Your task to perform on an android device: Go to eBay Image 0: 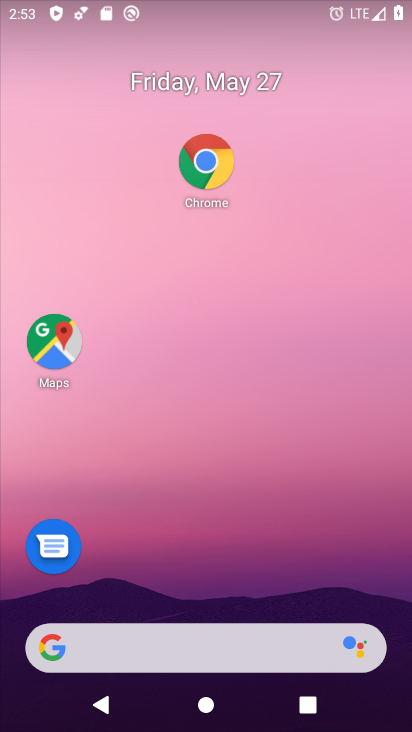
Step 0: click (200, 156)
Your task to perform on an android device: Go to eBay Image 1: 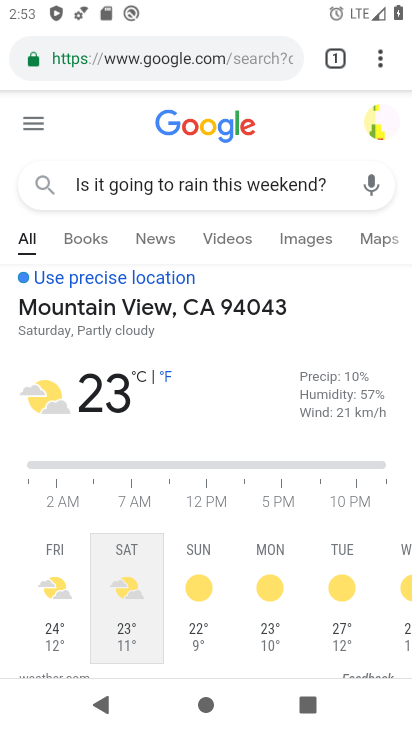
Step 1: click (112, 70)
Your task to perform on an android device: Go to eBay Image 2: 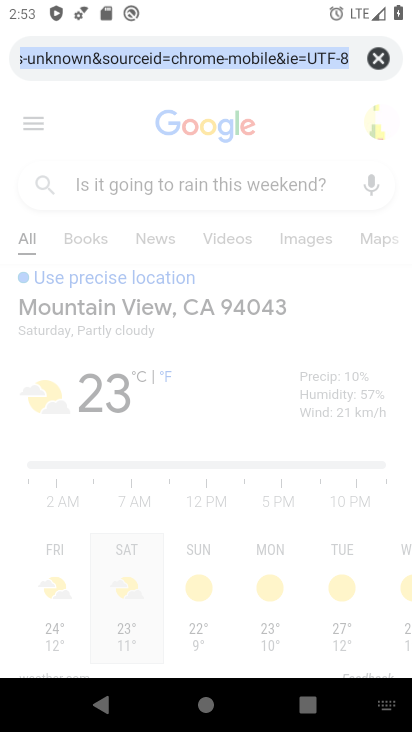
Step 2: type "eBay"
Your task to perform on an android device: Go to eBay Image 3: 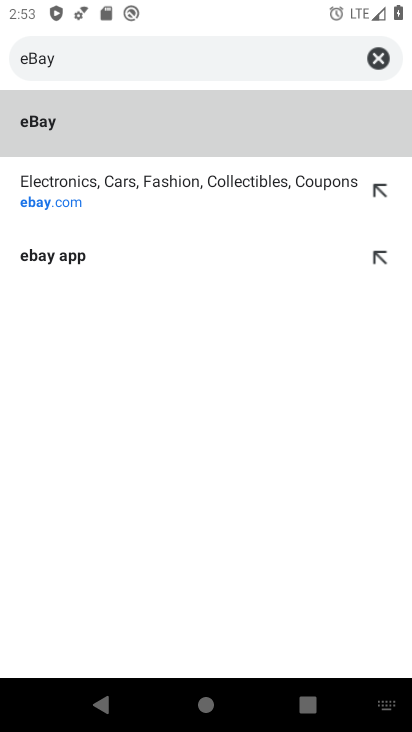
Step 3: click (157, 140)
Your task to perform on an android device: Go to eBay Image 4: 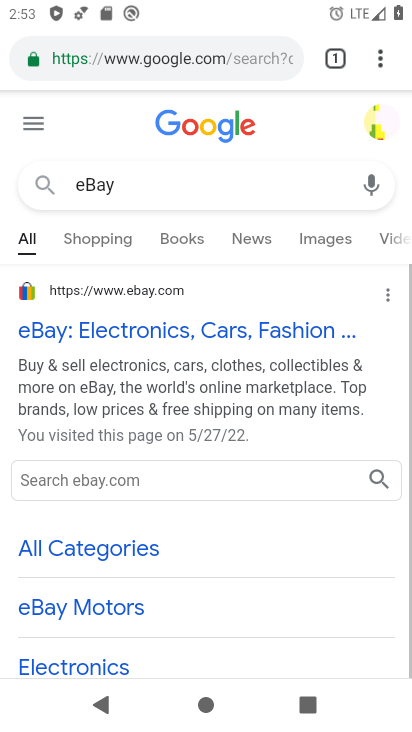
Step 4: task complete